Your task to perform on an android device: toggle translation in the chrome app Image 0: 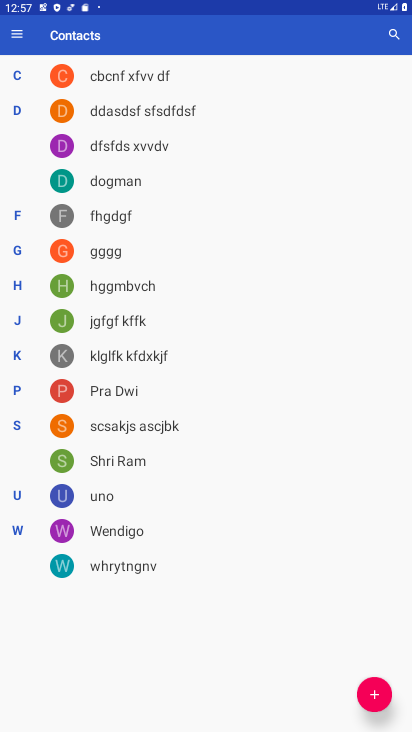
Step 0: press home button
Your task to perform on an android device: toggle translation in the chrome app Image 1: 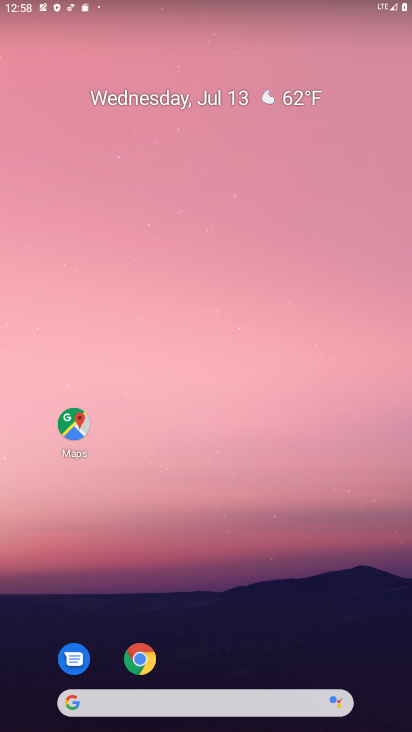
Step 1: drag from (236, 722) to (235, 170)
Your task to perform on an android device: toggle translation in the chrome app Image 2: 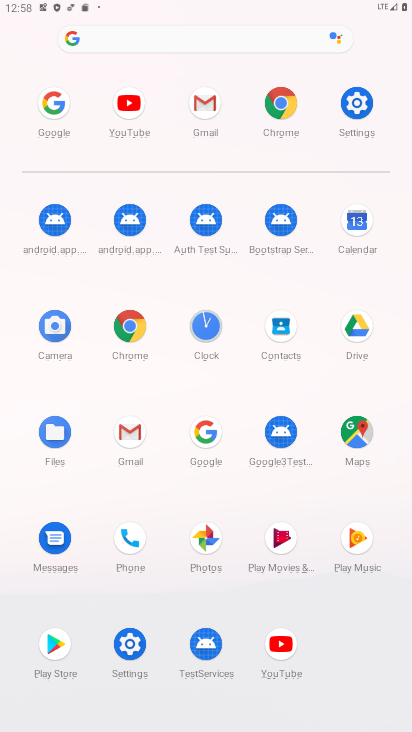
Step 2: click (131, 322)
Your task to perform on an android device: toggle translation in the chrome app Image 3: 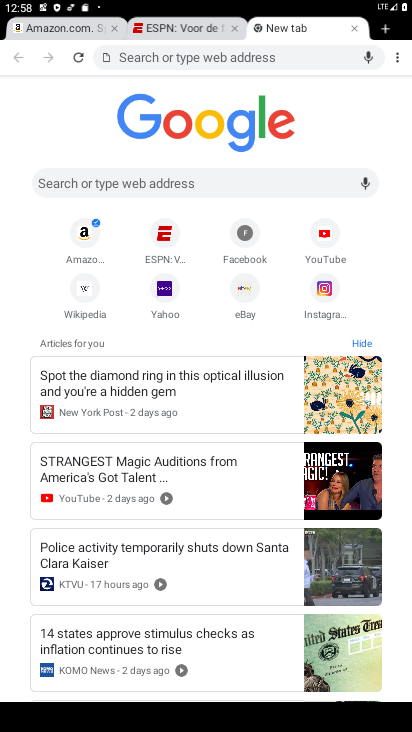
Step 3: click (390, 63)
Your task to perform on an android device: toggle translation in the chrome app Image 4: 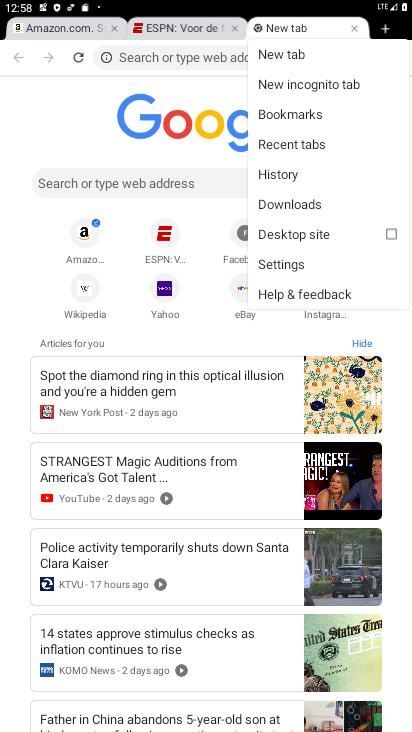
Step 4: click (282, 263)
Your task to perform on an android device: toggle translation in the chrome app Image 5: 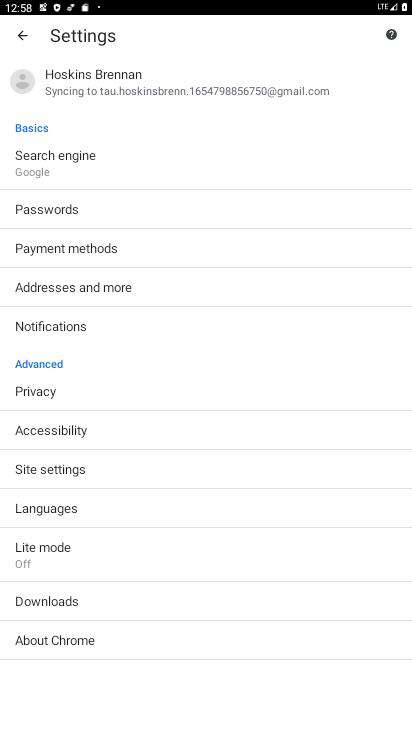
Step 5: click (56, 506)
Your task to perform on an android device: toggle translation in the chrome app Image 6: 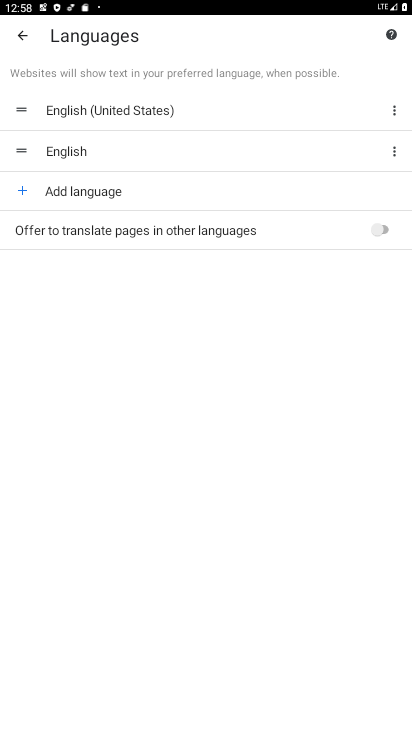
Step 6: click (384, 225)
Your task to perform on an android device: toggle translation in the chrome app Image 7: 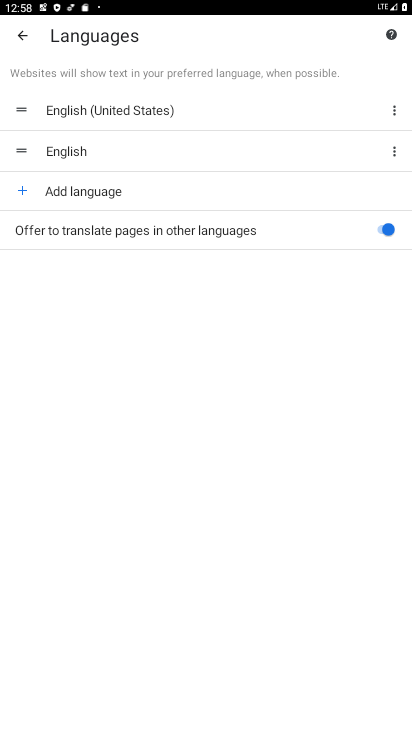
Step 7: task complete